Your task to perform on an android device: turn on bluetooth scan Image 0: 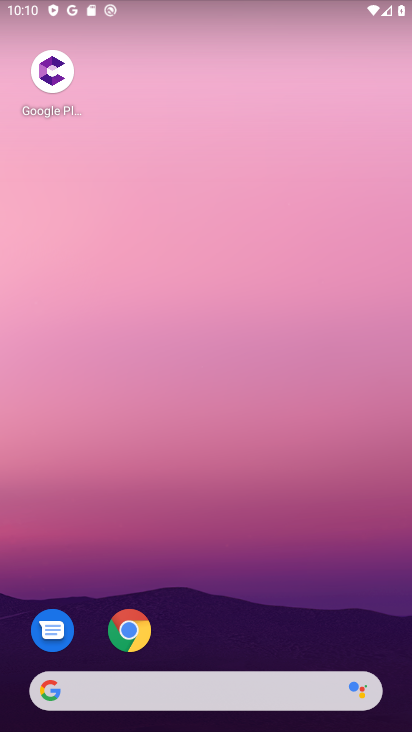
Step 0: drag from (171, 517) to (161, 122)
Your task to perform on an android device: turn on bluetooth scan Image 1: 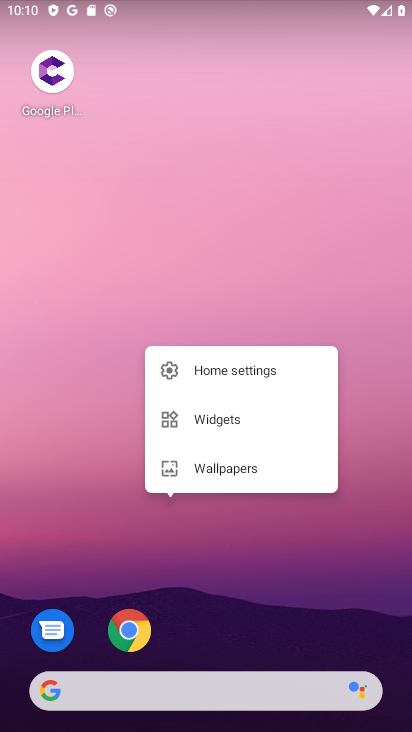
Step 1: click (273, 642)
Your task to perform on an android device: turn on bluetooth scan Image 2: 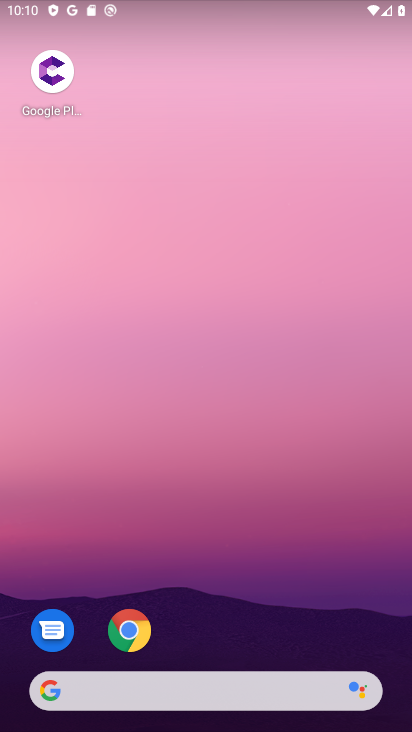
Step 2: drag from (273, 642) to (246, 318)
Your task to perform on an android device: turn on bluetooth scan Image 3: 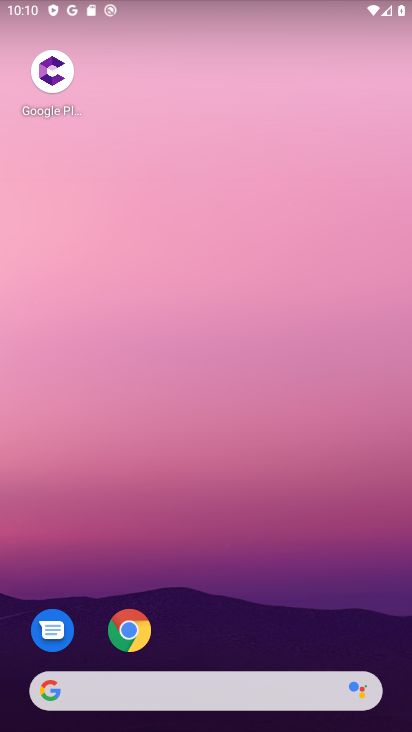
Step 3: drag from (263, 573) to (290, 165)
Your task to perform on an android device: turn on bluetooth scan Image 4: 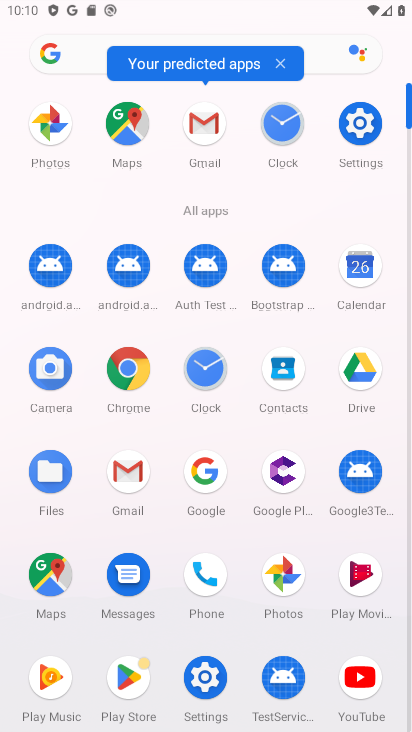
Step 4: click (365, 115)
Your task to perform on an android device: turn on bluetooth scan Image 5: 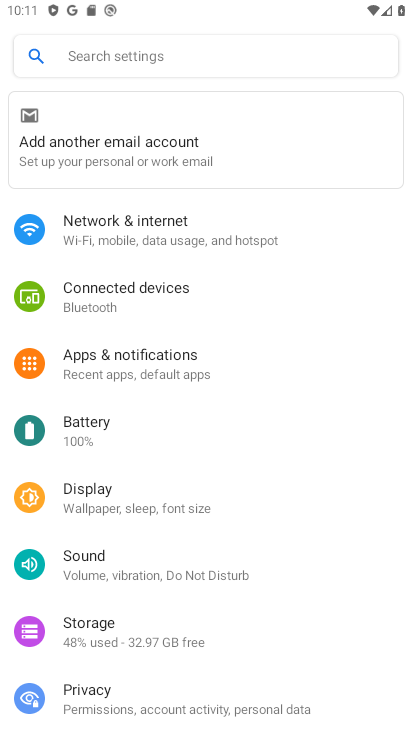
Step 5: click (94, 299)
Your task to perform on an android device: turn on bluetooth scan Image 6: 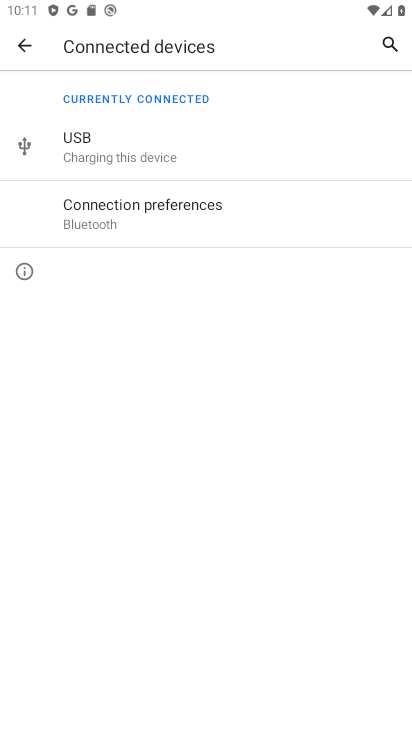
Step 6: click (125, 209)
Your task to perform on an android device: turn on bluetooth scan Image 7: 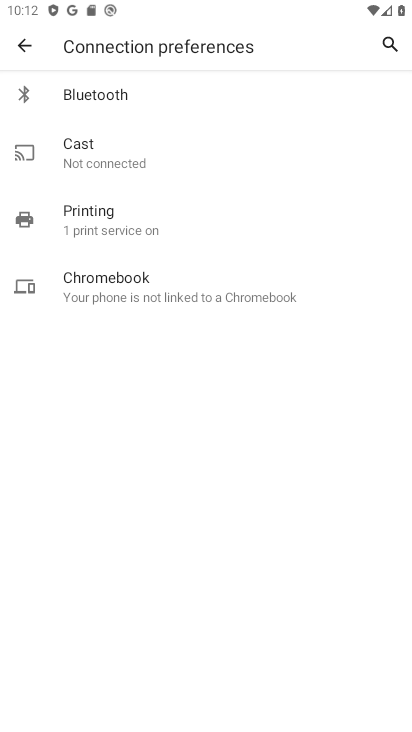
Step 7: click (97, 93)
Your task to perform on an android device: turn on bluetooth scan Image 8: 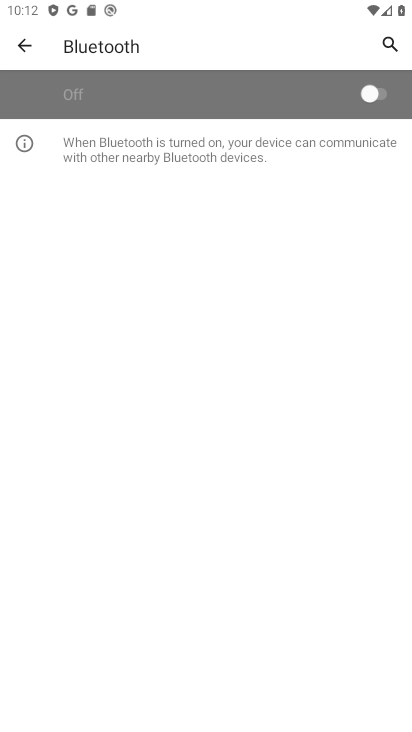
Step 8: task complete